Your task to perform on an android device: toggle data saver in the chrome app Image 0: 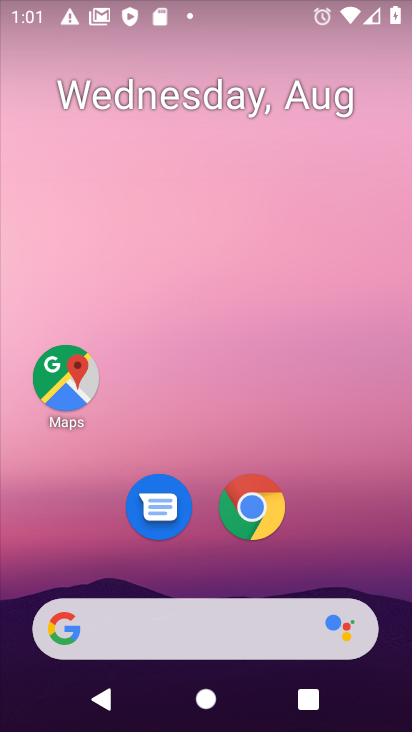
Step 0: click (249, 533)
Your task to perform on an android device: toggle data saver in the chrome app Image 1: 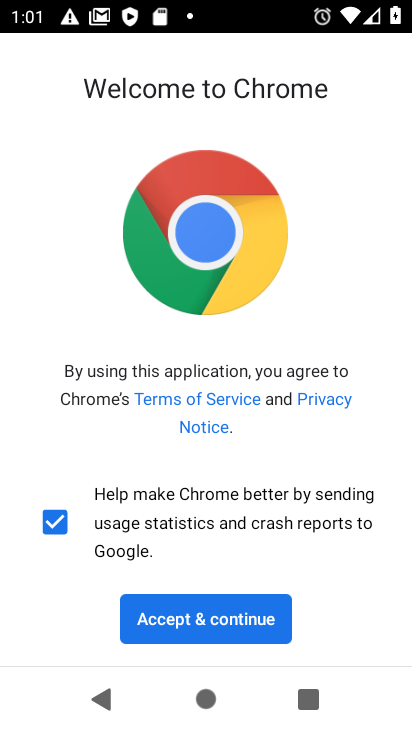
Step 1: click (254, 613)
Your task to perform on an android device: toggle data saver in the chrome app Image 2: 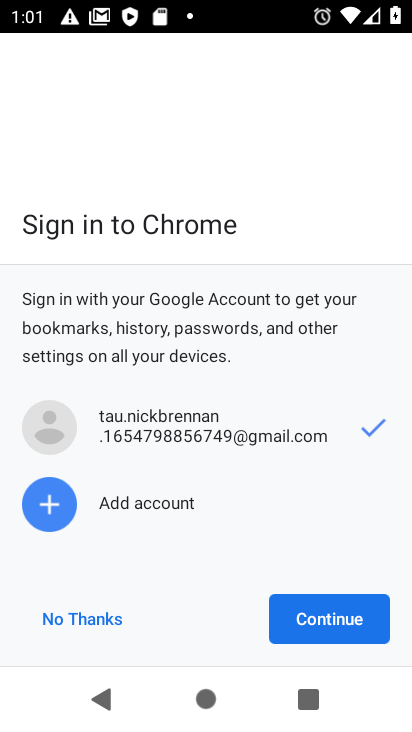
Step 2: click (324, 614)
Your task to perform on an android device: toggle data saver in the chrome app Image 3: 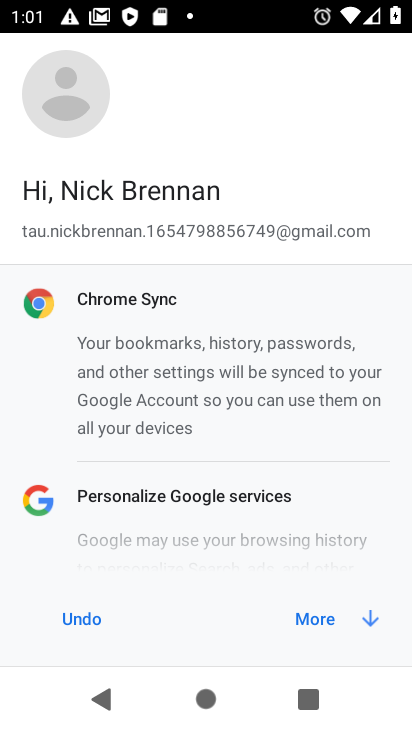
Step 3: click (321, 624)
Your task to perform on an android device: toggle data saver in the chrome app Image 4: 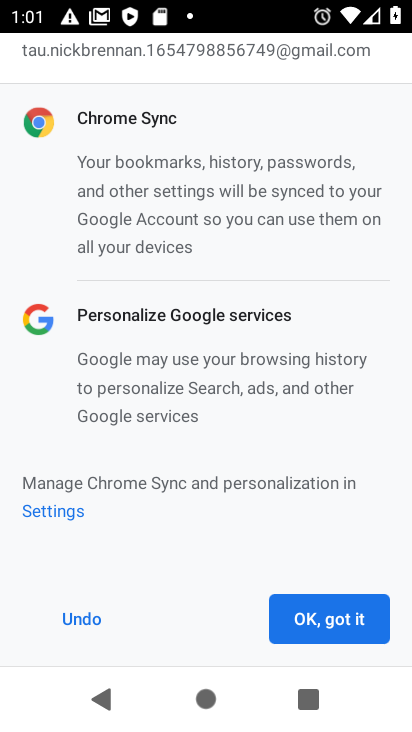
Step 4: click (329, 622)
Your task to perform on an android device: toggle data saver in the chrome app Image 5: 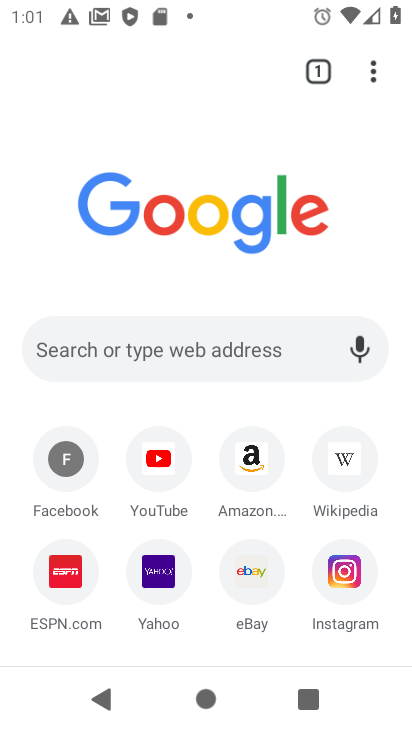
Step 5: drag from (372, 79) to (130, 508)
Your task to perform on an android device: toggle data saver in the chrome app Image 6: 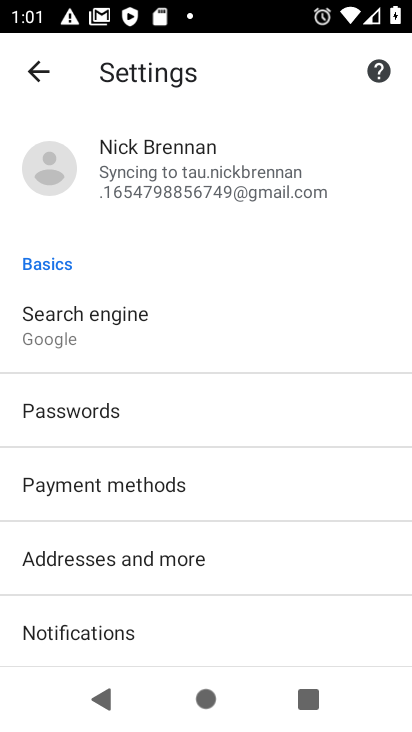
Step 6: drag from (211, 594) to (168, 93)
Your task to perform on an android device: toggle data saver in the chrome app Image 7: 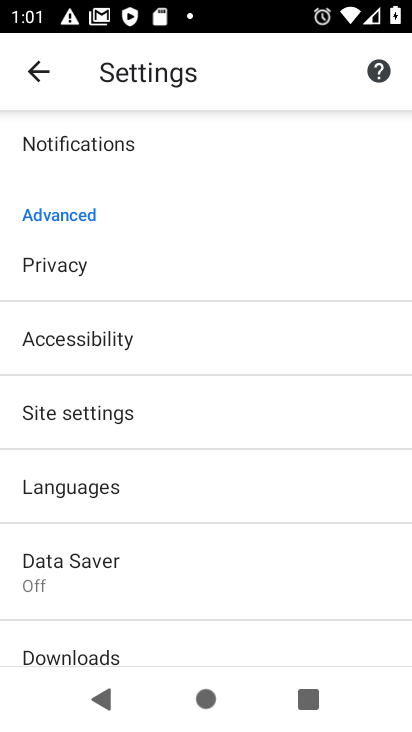
Step 7: click (138, 581)
Your task to perform on an android device: toggle data saver in the chrome app Image 8: 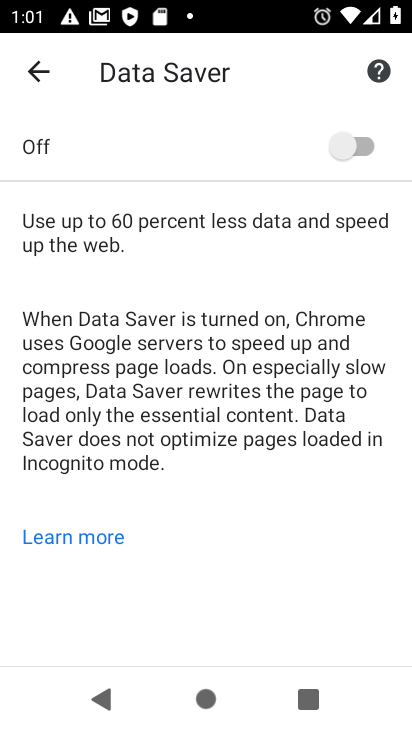
Step 8: click (348, 146)
Your task to perform on an android device: toggle data saver in the chrome app Image 9: 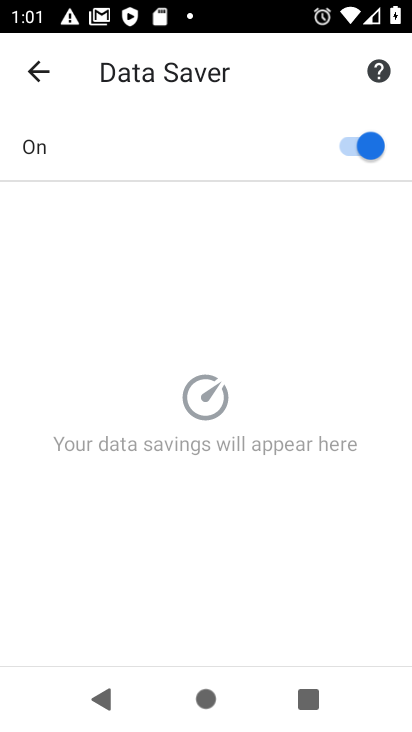
Step 9: task complete